Your task to perform on an android device: turn off smart reply in the gmail app Image 0: 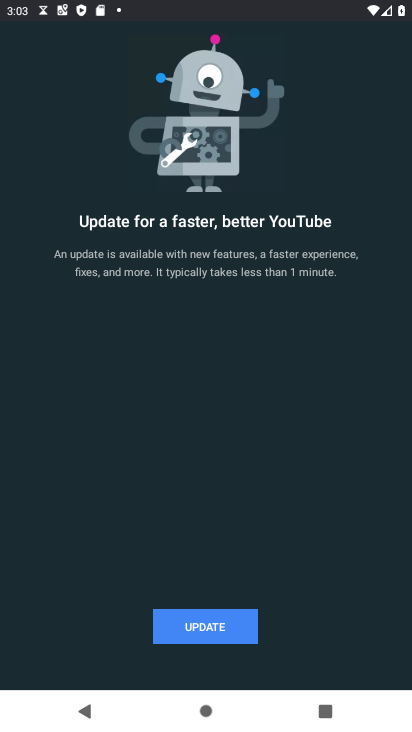
Step 0: press home button
Your task to perform on an android device: turn off smart reply in the gmail app Image 1: 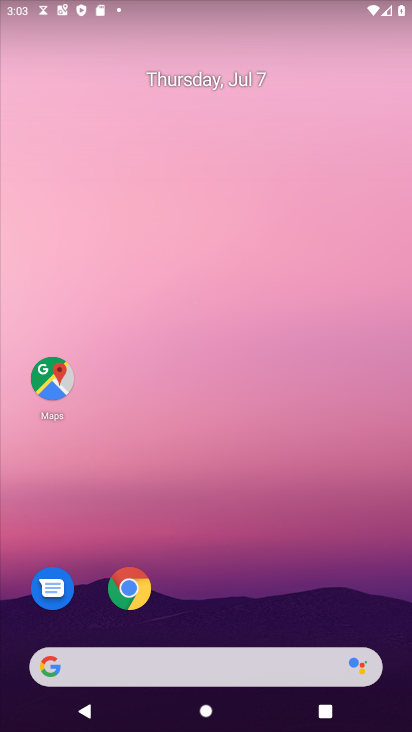
Step 1: drag from (253, 612) to (180, 192)
Your task to perform on an android device: turn off smart reply in the gmail app Image 2: 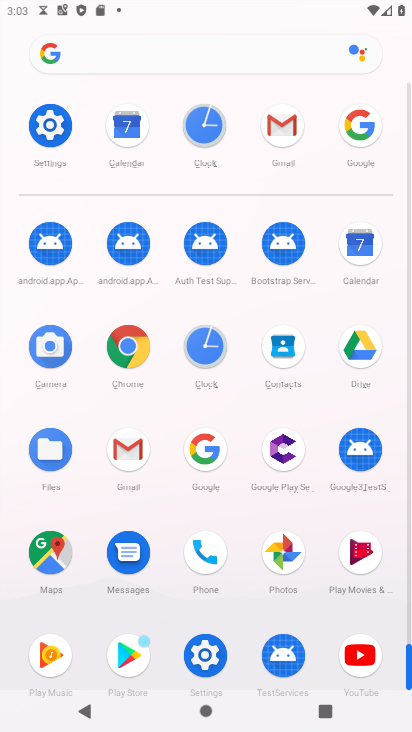
Step 2: click (281, 122)
Your task to perform on an android device: turn off smart reply in the gmail app Image 3: 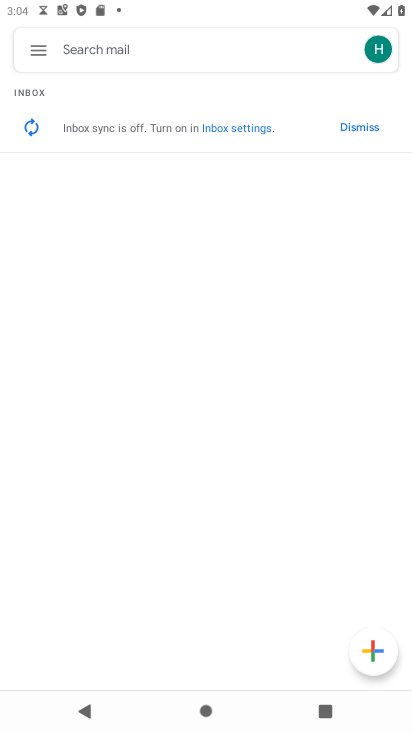
Step 3: click (33, 49)
Your task to perform on an android device: turn off smart reply in the gmail app Image 4: 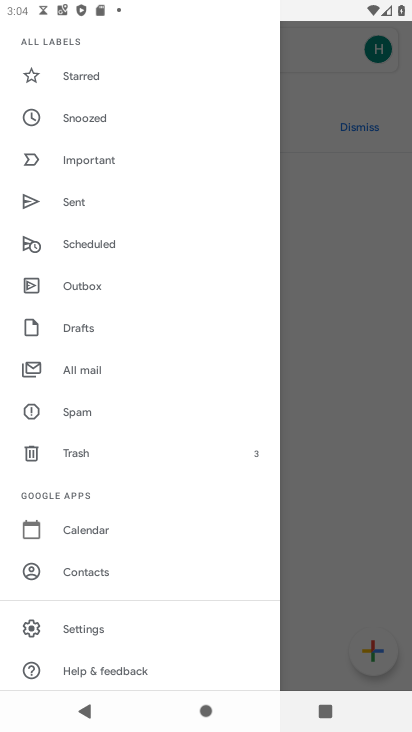
Step 4: click (77, 628)
Your task to perform on an android device: turn off smart reply in the gmail app Image 5: 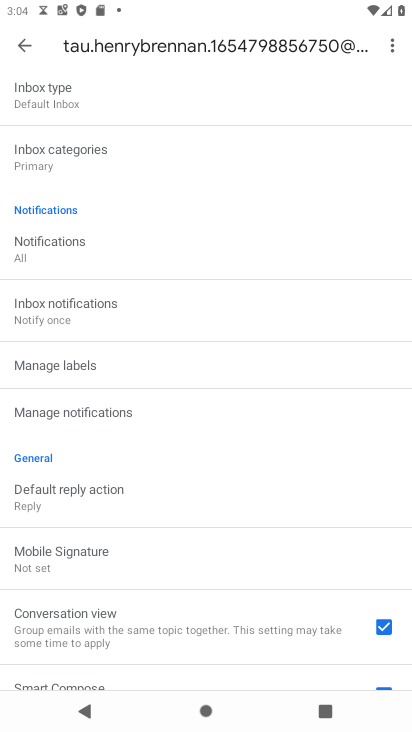
Step 5: drag from (104, 586) to (134, 486)
Your task to perform on an android device: turn off smart reply in the gmail app Image 6: 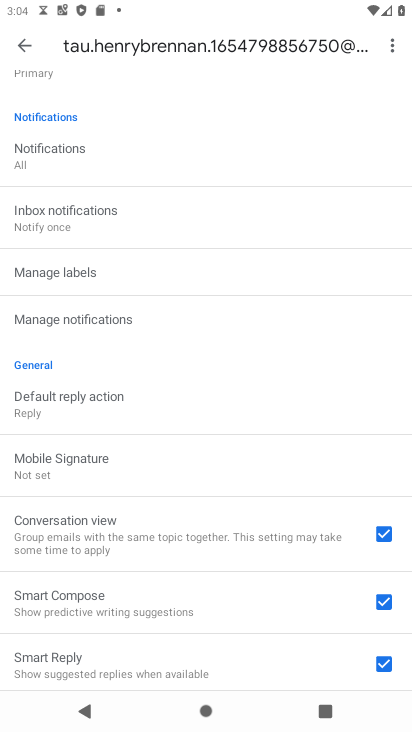
Step 6: drag from (161, 582) to (185, 452)
Your task to perform on an android device: turn off smart reply in the gmail app Image 7: 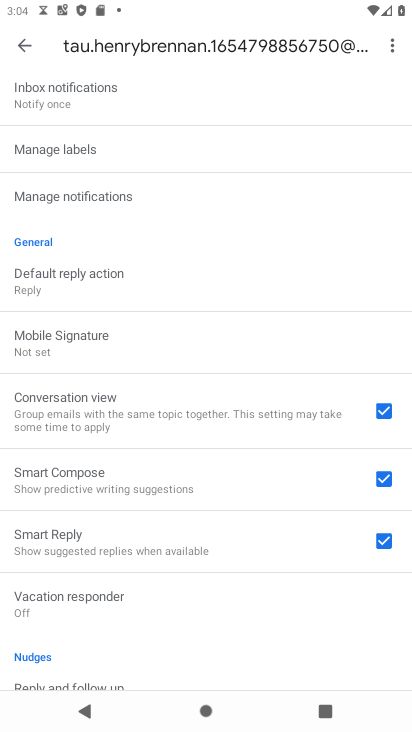
Step 7: click (388, 543)
Your task to perform on an android device: turn off smart reply in the gmail app Image 8: 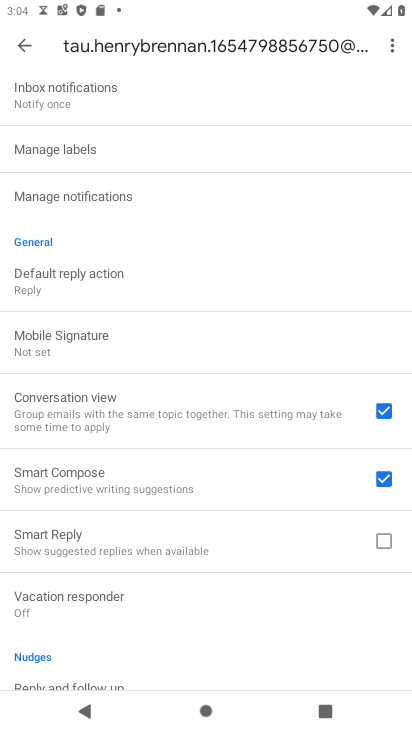
Step 8: task complete